Your task to perform on an android device: turn notification dots on Image 0: 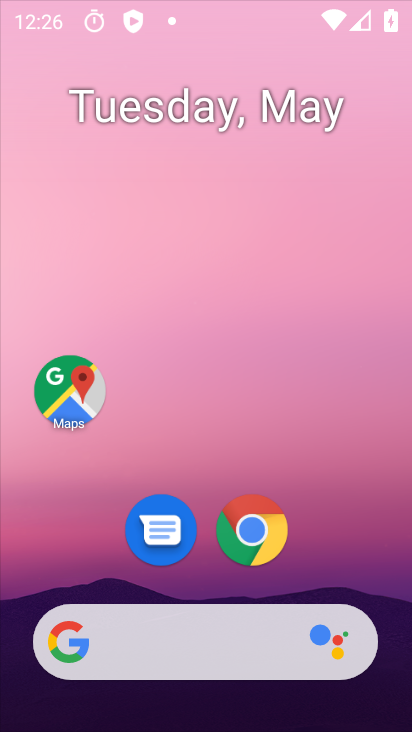
Step 0: click (244, 28)
Your task to perform on an android device: turn notification dots on Image 1: 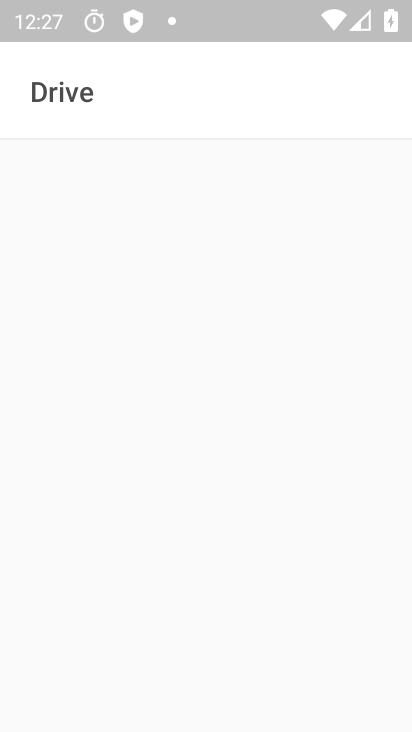
Step 1: press back button
Your task to perform on an android device: turn notification dots on Image 2: 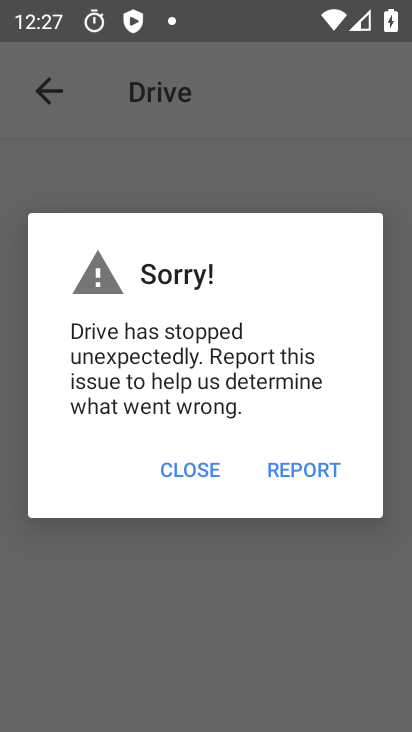
Step 2: press home button
Your task to perform on an android device: turn notification dots on Image 3: 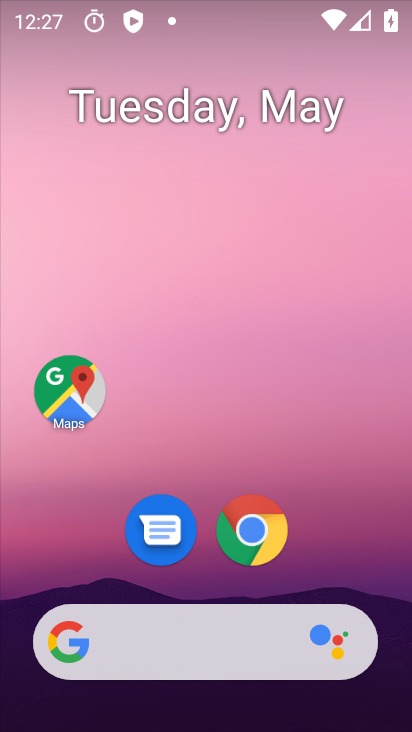
Step 3: drag from (368, 542) to (231, 30)
Your task to perform on an android device: turn notification dots on Image 4: 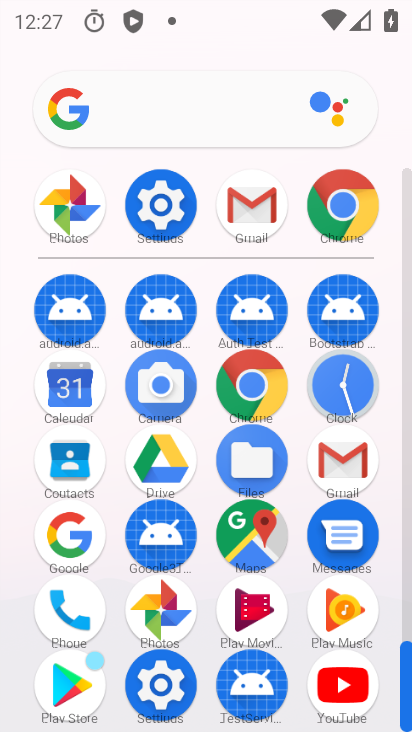
Step 4: click (160, 203)
Your task to perform on an android device: turn notification dots on Image 5: 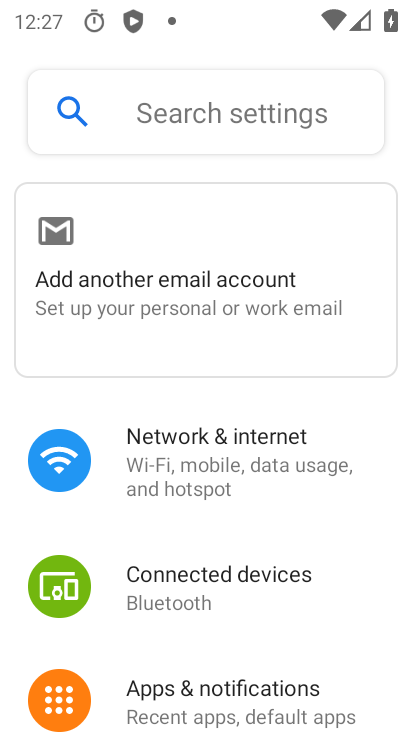
Step 5: drag from (301, 585) to (288, 171)
Your task to perform on an android device: turn notification dots on Image 6: 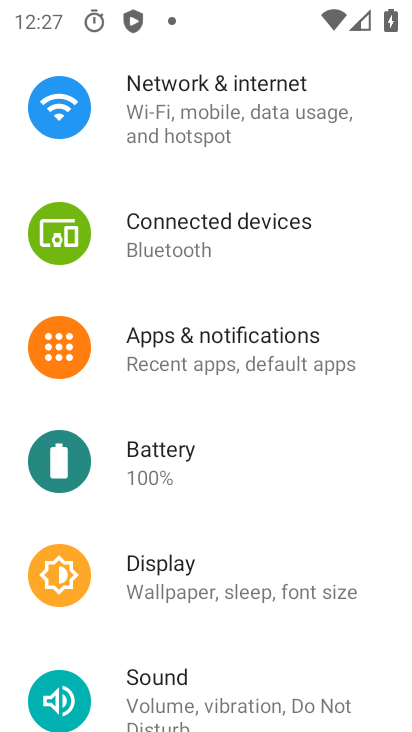
Step 6: click (213, 344)
Your task to perform on an android device: turn notification dots on Image 7: 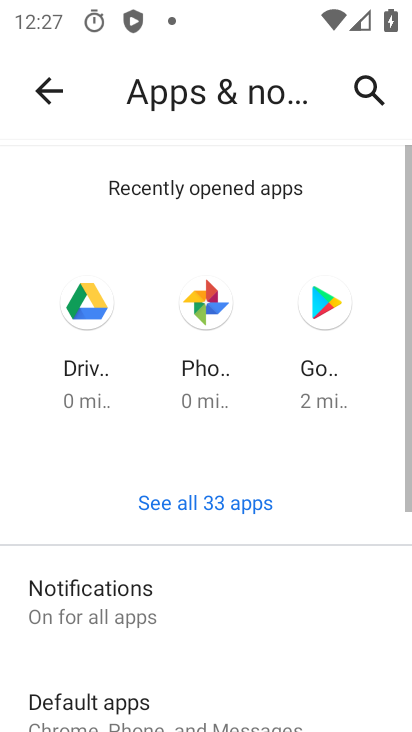
Step 7: click (179, 580)
Your task to perform on an android device: turn notification dots on Image 8: 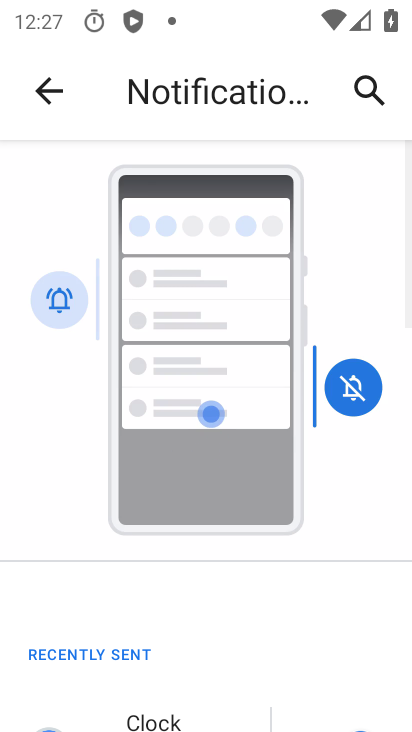
Step 8: drag from (295, 603) to (293, 116)
Your task to perform on an android device: turn notification dots on Image 9: 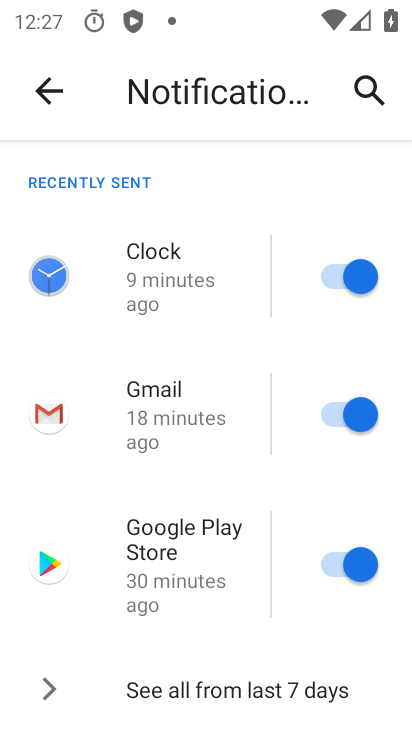
Step 9: drag from (188, 590) to (158, 159)
Your task to perform on an android device: turn notification dots on Image 10: 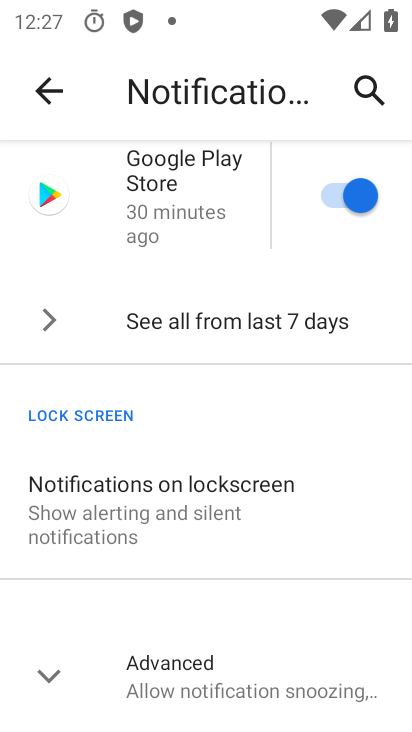
Step 10: click (79, 648)
Your task to perform on an android device: turn notification dots on Image 11: 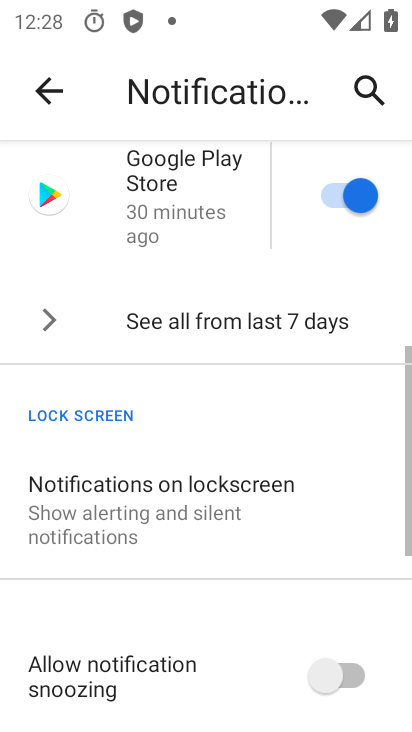
Step 11: task complete